Your task to perform on an android device: Open the phone app and click the voicemail tab. Image 0: 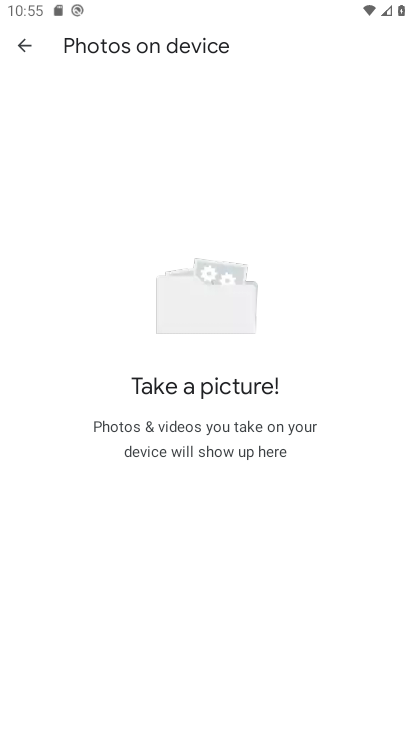
Step 0: press back button
Your task to perform on an android device: Open the phone app and click the voicemail tab. Image 1: 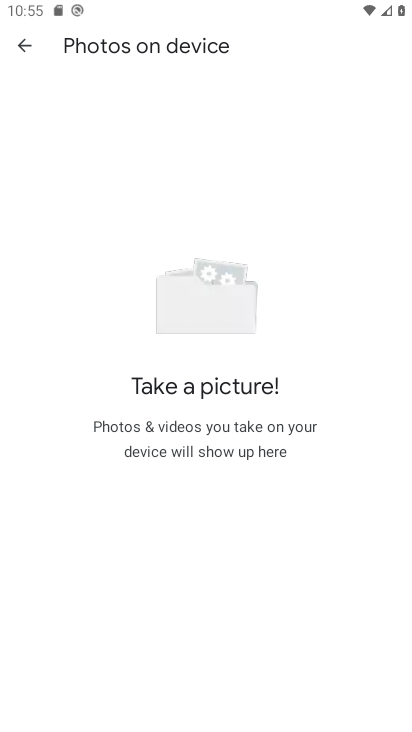
Step 1: press back button
Your task to perform on an android device: Open the phone app and click the voicemail tab. Image 2: 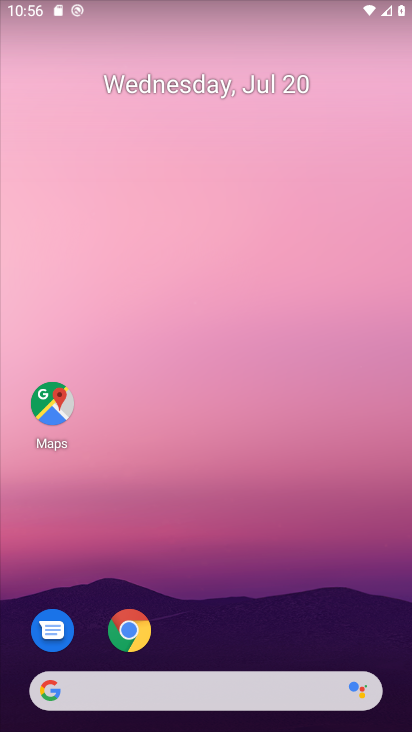
Step 2: drag from (287, 677) to (286, 324)
Your task to perform on an android device: Open the phone app and click the voicemail tab. Image 3: 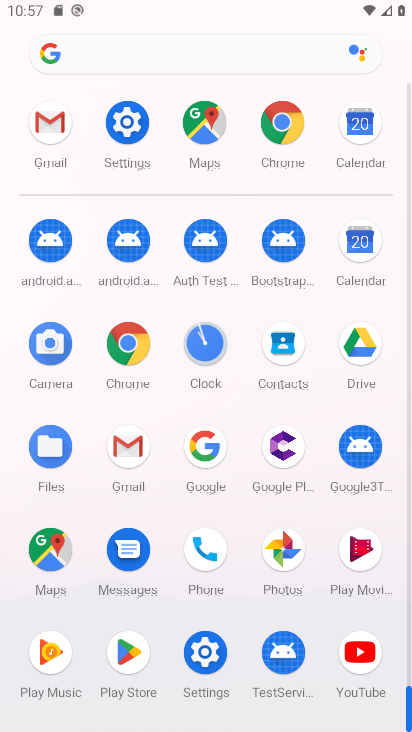
Step 3: click (185, 551)
Your task to perform on an android device: Open the phone app and click the voicemail tab. Image 4: 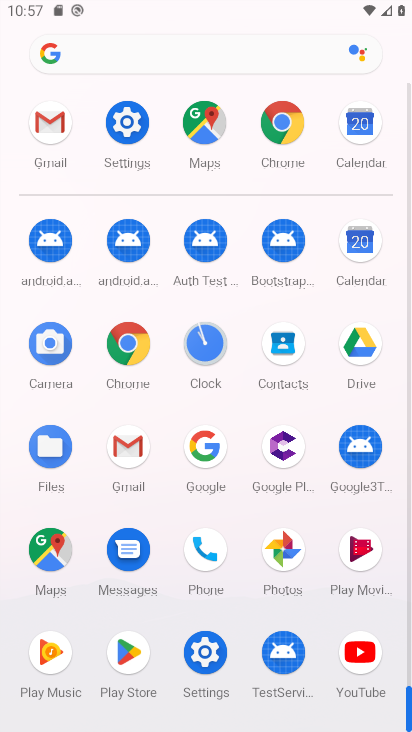
Step 4: click (203, 549)
Your task to perform on an android device: Open the phone app and click the voicemail tab. Image 5: 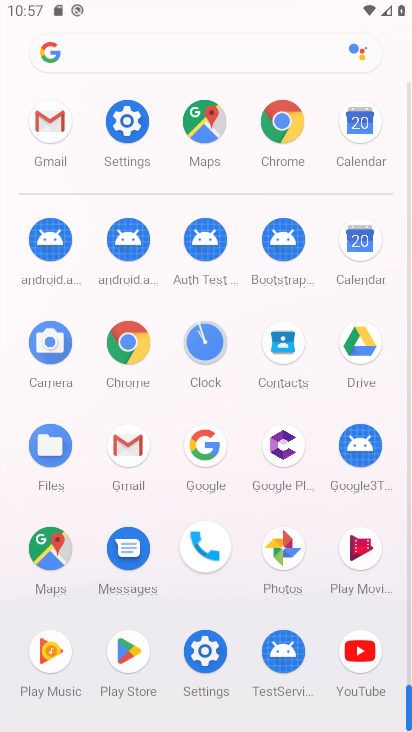
Step 5: click (205, 544)
Your task to perform on an android device: Open the phone app and click the voicemail tab. Image 6: 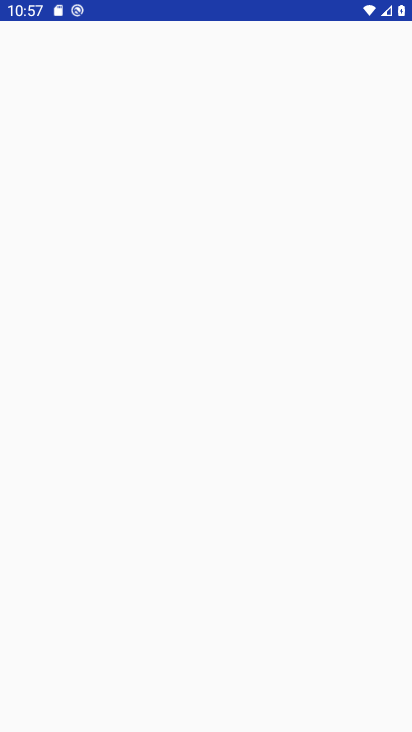
Step 6: click (210, 535)
Your task to perform on an android device: Open the phone app and click the voicemail tab. Image 7: 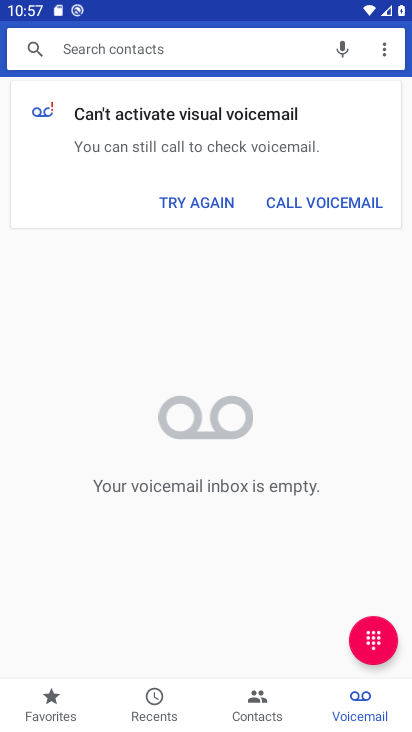
Step 7: click (368, 696)
Your task to perform on an android device: Open the phone app and click the voicemail tab. Image 8: 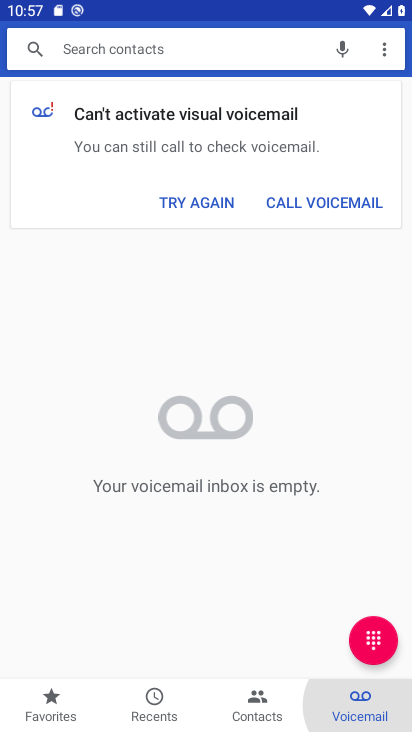
Step 8: click (367, 696)
Your task to perform on an android device: Open the phone app and click the voicemail tab. Image 9: 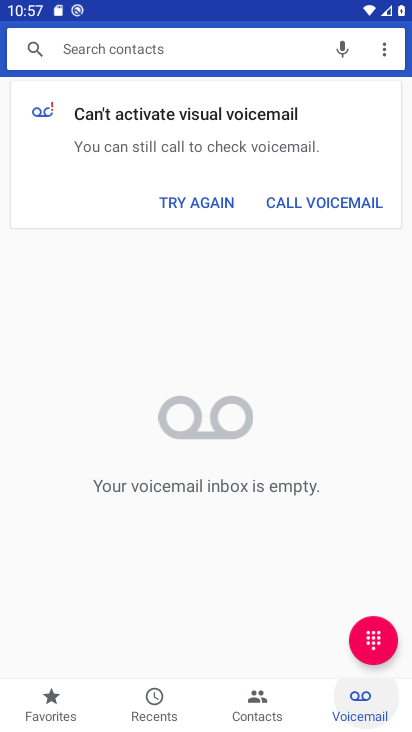
Step 9: click (375, 709)
Your task to perform on an android device: Open the phone app and click the voicemail tab. Image 10: 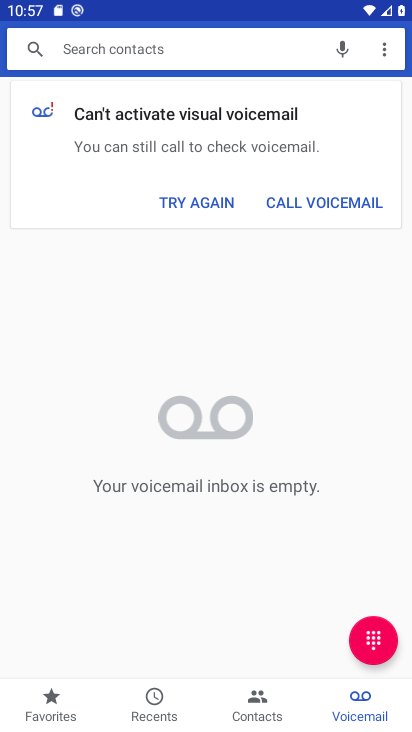
Step 10: task complete